Your task to perform on an android device: star an email in the gmail app Image 0: 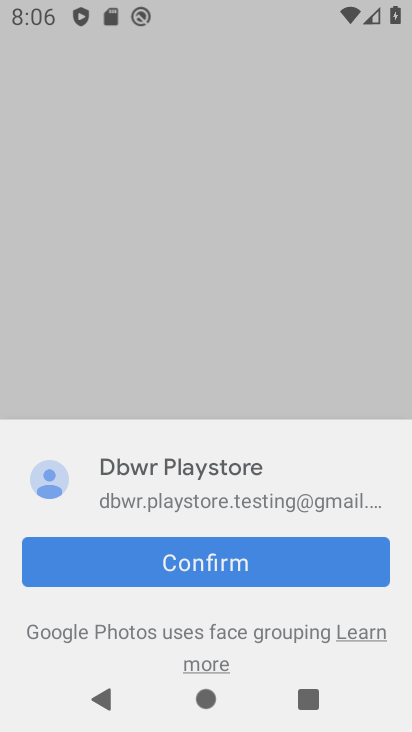
Step 0: press home button
Your task to perform on an android device: star an email in the gmail app Image 1: 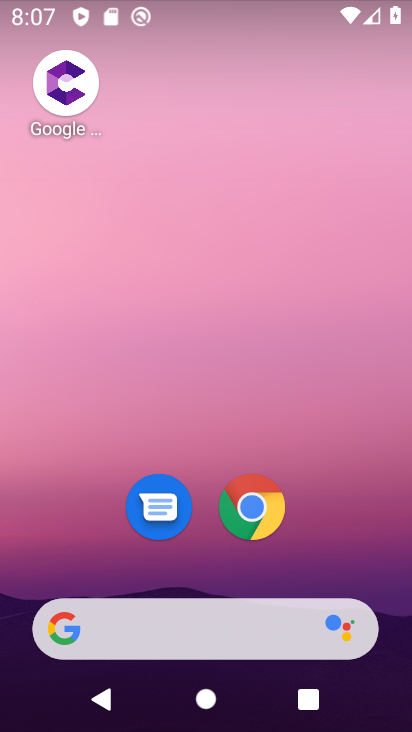
Step 1: drag from (209, 578) to (119, 617)
Your task to perform on an android device: star an email in the gmail app Image 2: 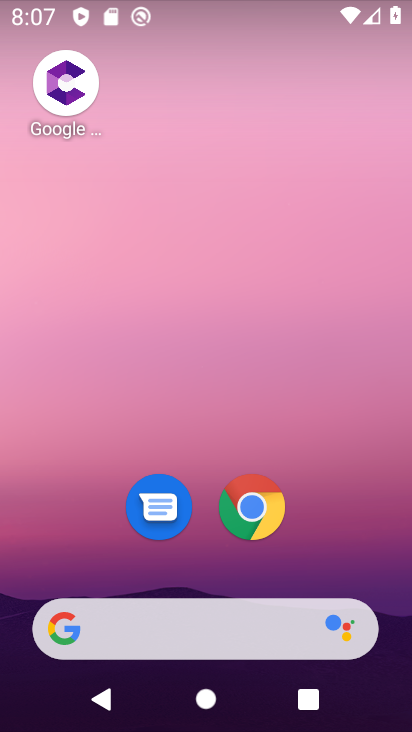
Step 2: drag from (217, 565) to (210, 4)
Your task to perform on an android device: star an email in the gmail app Image 3: 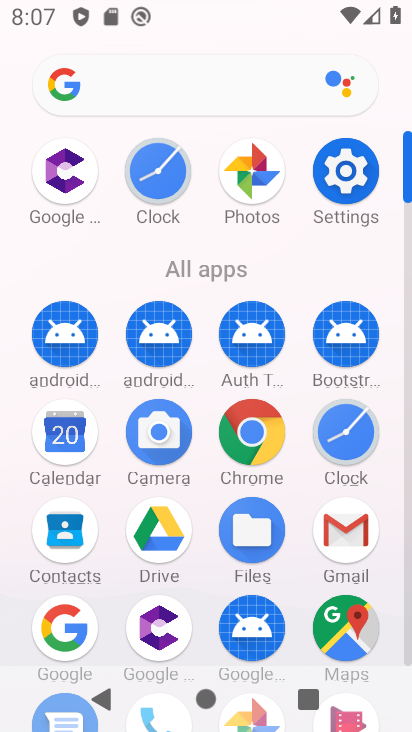
Step 3: click (351, 529)
Your task to perform on an android device: star an email in the gmail app Image 4: 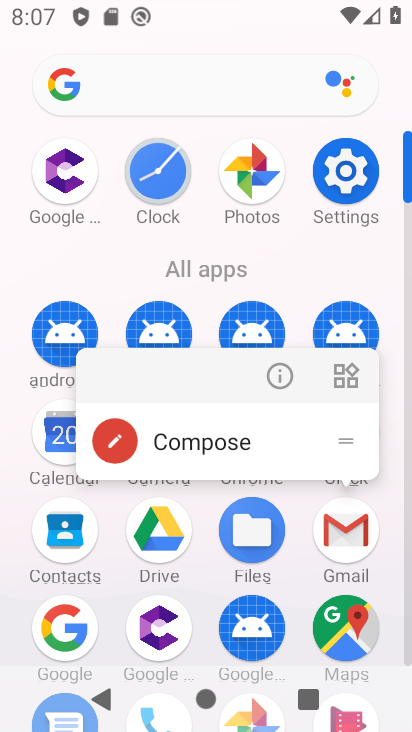
Step 4: click (353, 533)
Your task to perform on an android device: star an email in the gmail app Image 5: 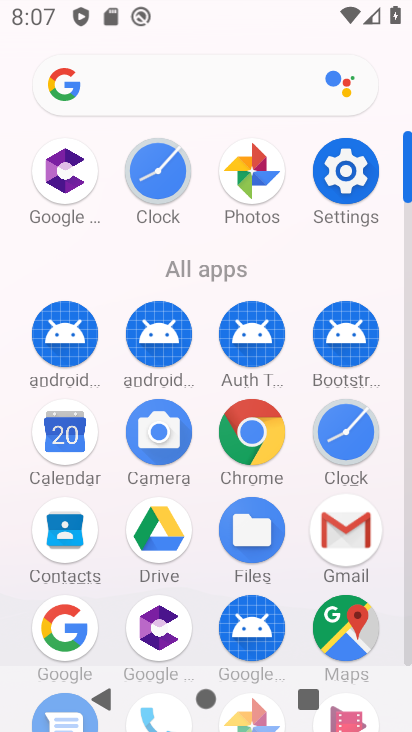
Step 5: click (353, 533)
Your task to perform on an android device: star an email in the gmail app Image 6: 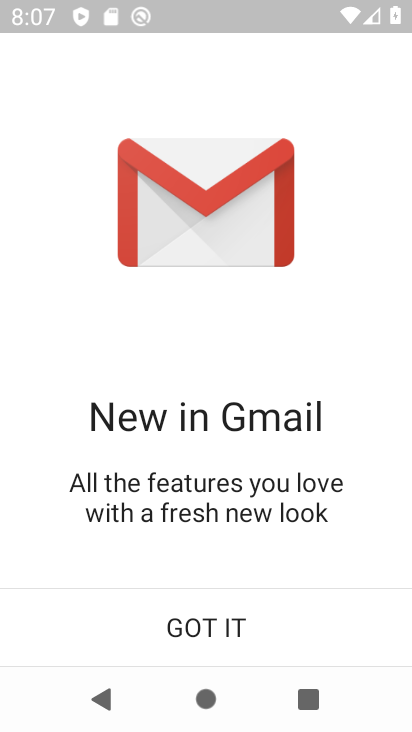
Step 6: click (246, 642)
Your task to perform on an android device: star an email in the gmail app Image 7: 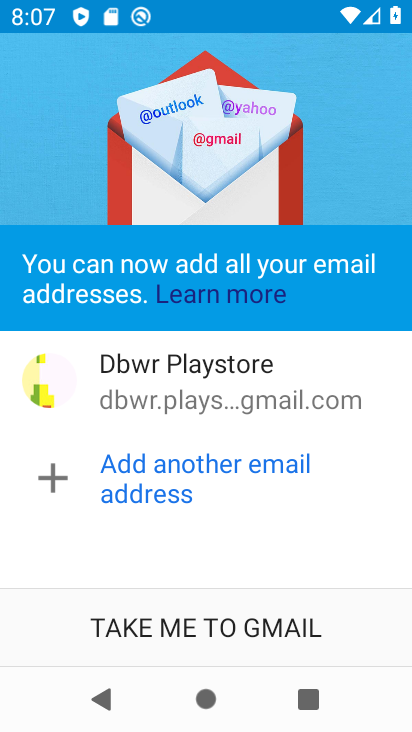
Step 7: click (243, 616)
Your task to perform on an android device: star an email in the gmail app Image 8: 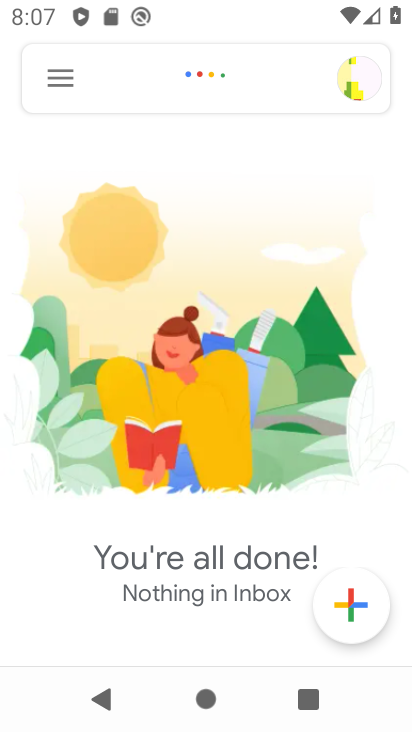
Step 8: task complete